Your task to perform on an android device: Open calendar and show me the third week of next month Image 0: 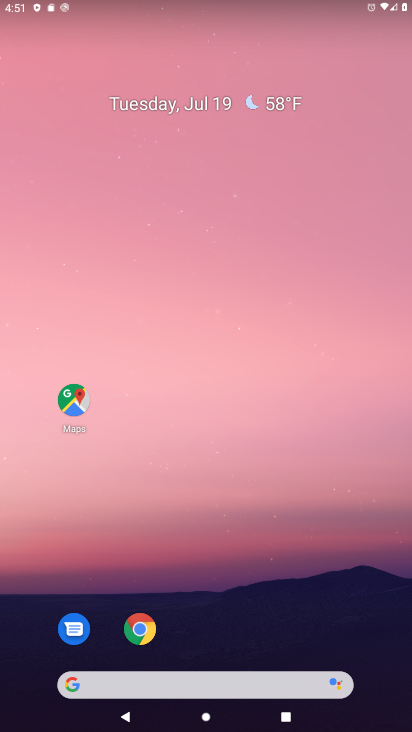
Step 0: drag from (236, 571) to (229, 77)
Your task to perform on an android device: Open calendar and show me the third week of next month Image 1: 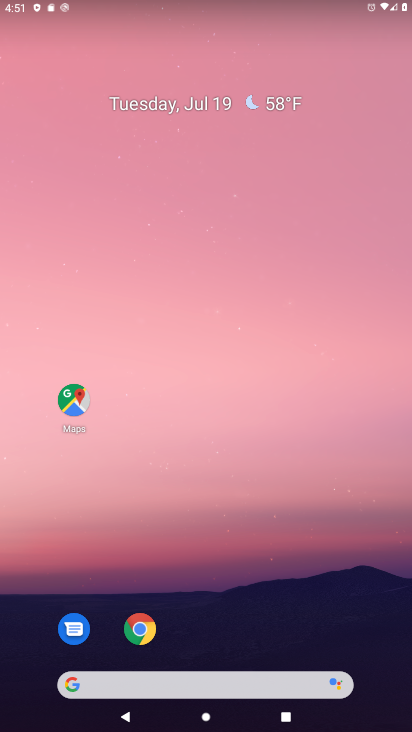
Step 1: drag from (248, 589) to (213, 158)
Your task to perform on an android device: Open calendar and show me the third week of next month Image 2: 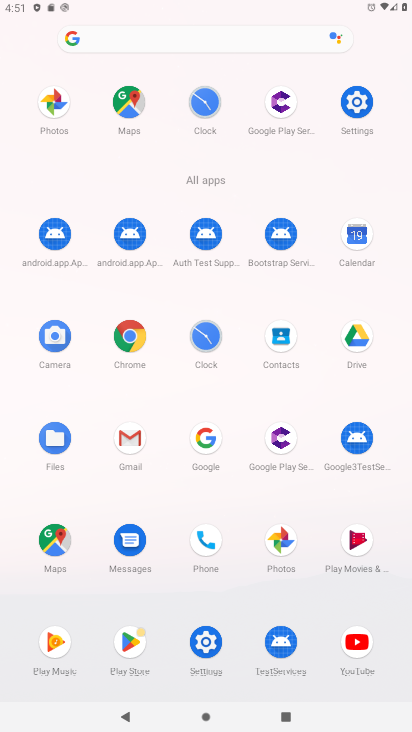
Step 2: drag from (243, 591) to (220, 155)
Your task to perform on an android device: Open calendar and show me the third week of next month Image 3: 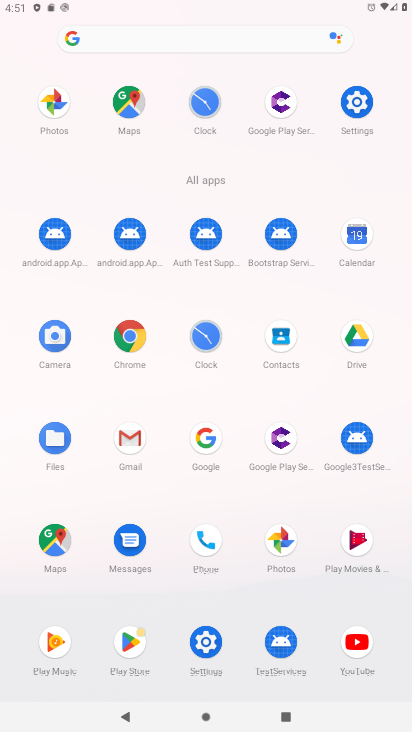
Step 3: click (354, 236)
Your task to perform on an android device: Open calendar and show me the third week of next month Image 4: 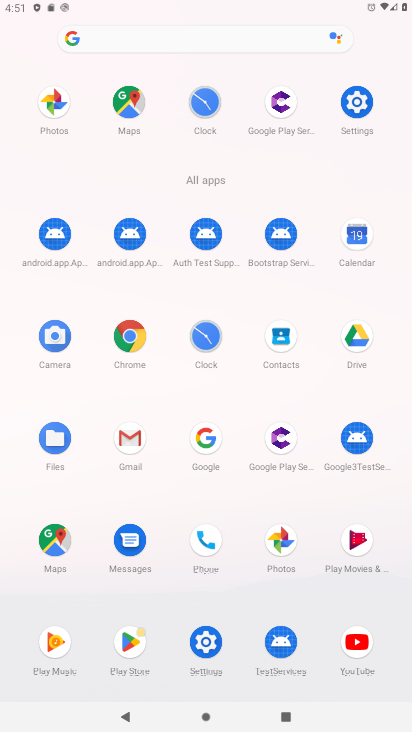
Step 4: click (355, 236)
Your task to perform on an android device: Open calendar and show me the third week of next month Image 5: 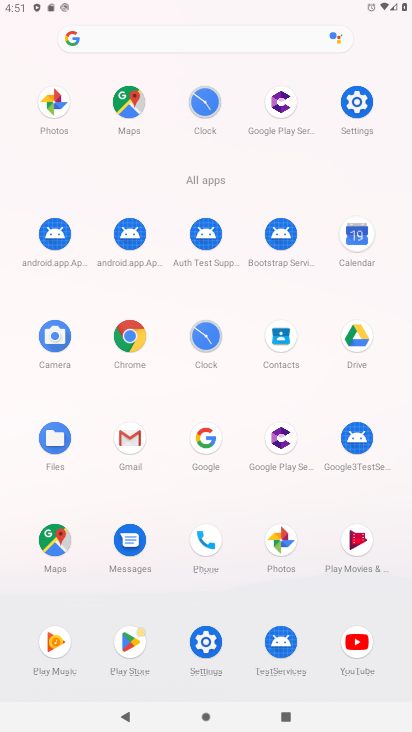
Step 5: click (357, 235)
Your task to perform on an android device: Open calendar and show me the third week of next month Image 6: 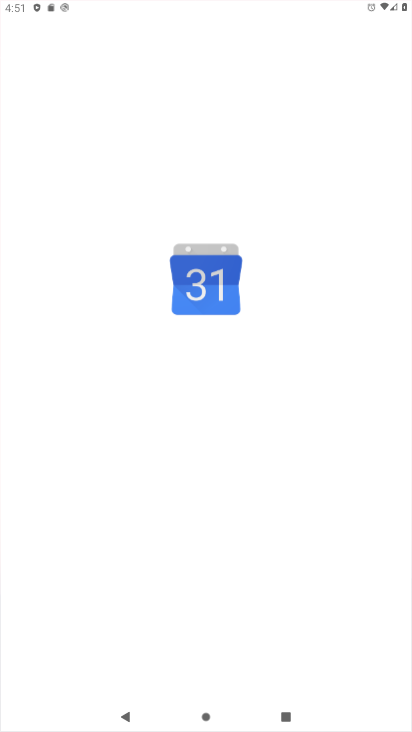
Step 6: click (357, 235)
Your task to perform on an android device: Open calendar and show me the third week of next month Image 7: 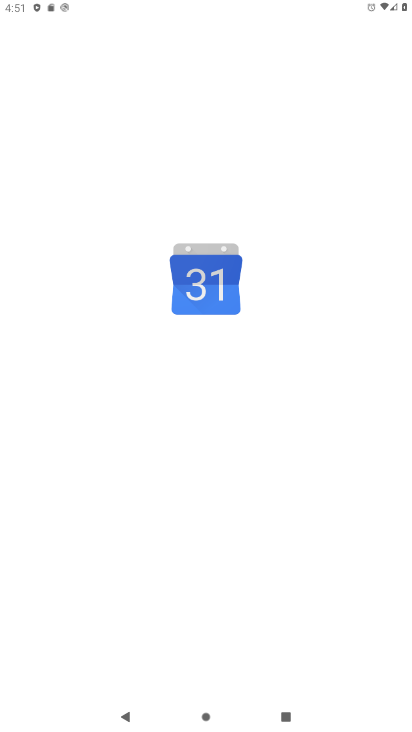
Step 7: click (357, 235)
Your task to perform on an android device: Open calendar and show me the third week of next month Image 8: 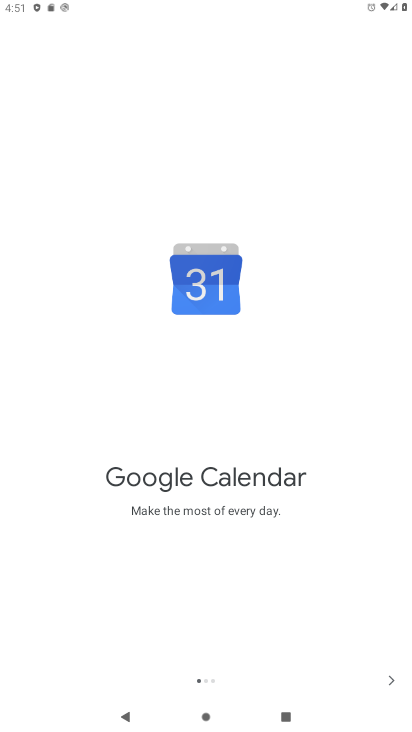
Step 8: click (373, 682)
Your task to perform on an android device: Open calendar and show me the third week of next month Image 9: 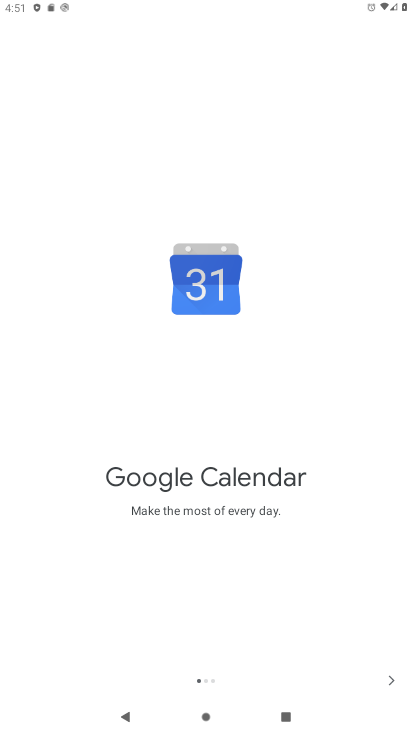
Step 9: click (377, 682)
Your task to perform on an android device: Open calendar and show me the third week of next month Image 10: 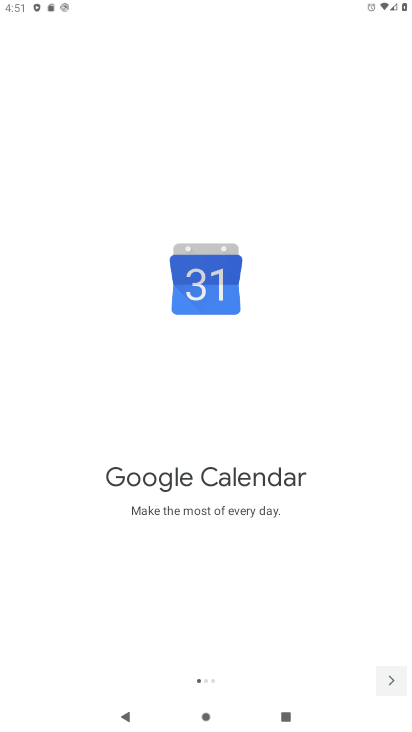
Step 10: click (384, 673)
Your task to perform on an android device: Open calendar and show me the third week of next month Image 11: 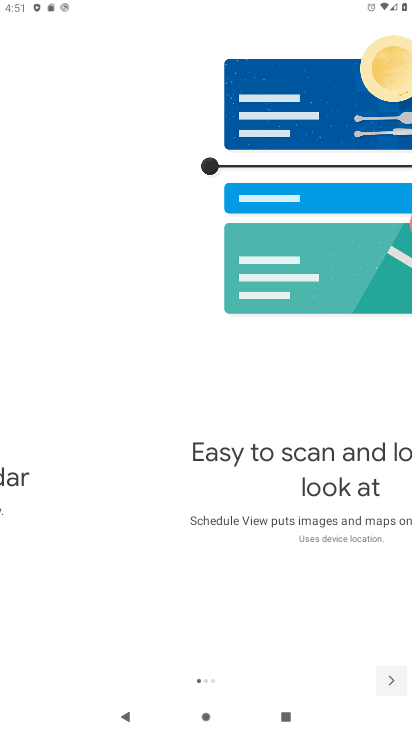
Step 11: click (385, 674)
Your task to perform on an android device: Open calendar and show me the third week of next month Image 12: 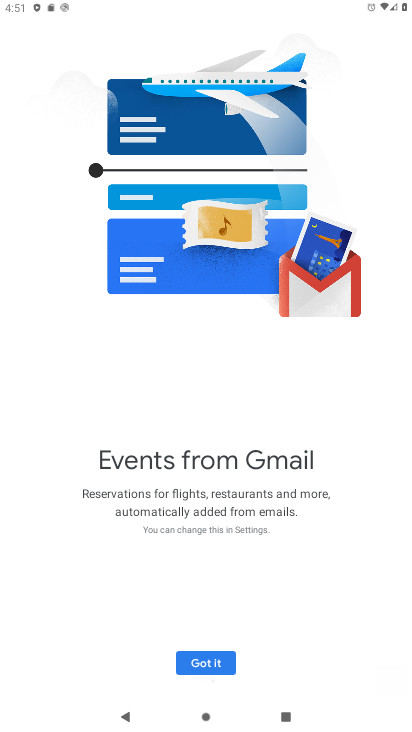
Step 12: click (393, 676)
Your task to perform on an android device: Open calendar and show me the third week of next month Image 13: 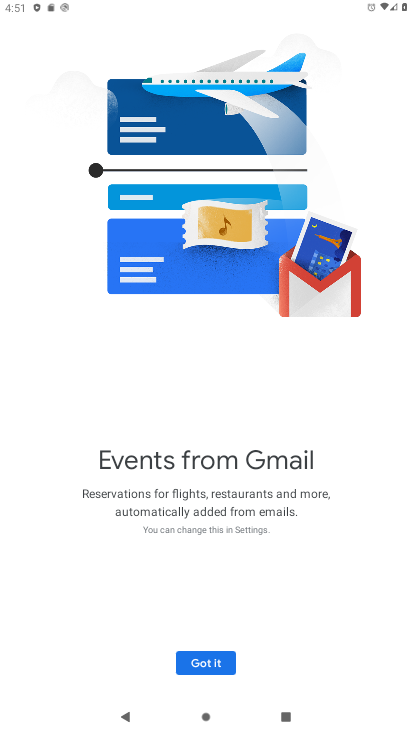
Step 13: click (188, 665)
Your task to perform on an android device: Open calendar and show me the third week of next month Image 14: 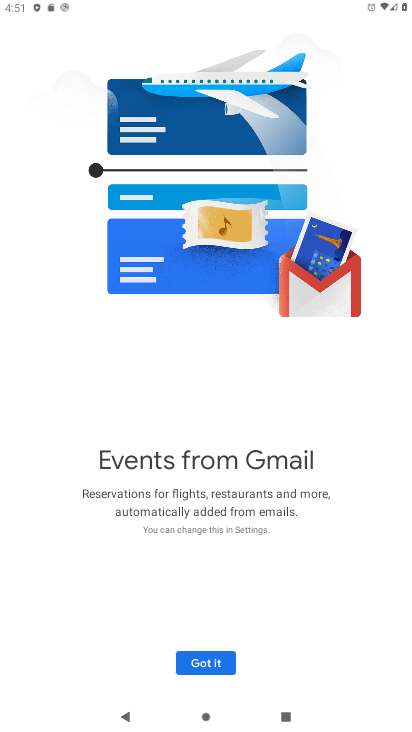
Step 14: click (235, 659)
Your task to perform on an android device: Open calendar and show me the third week of next month Image 15: 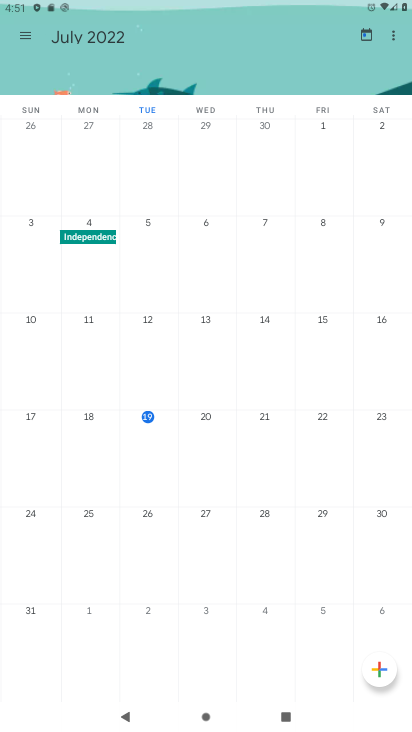
Step 15: drag from (317, 443) to (4, 432)
Your task to perform on an android device: Open calendar and show me the third week of next month Image 16: 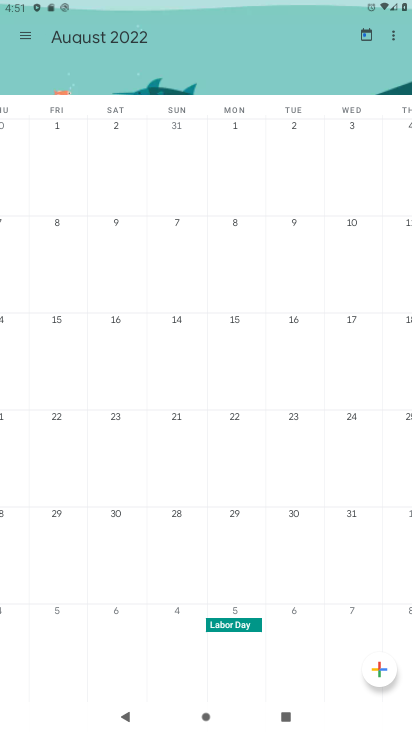
Step 16: drag from (343, 490) to (32, 497)
Your task to perform on an android device: Open calendar and show me the third week of next month Image 17: 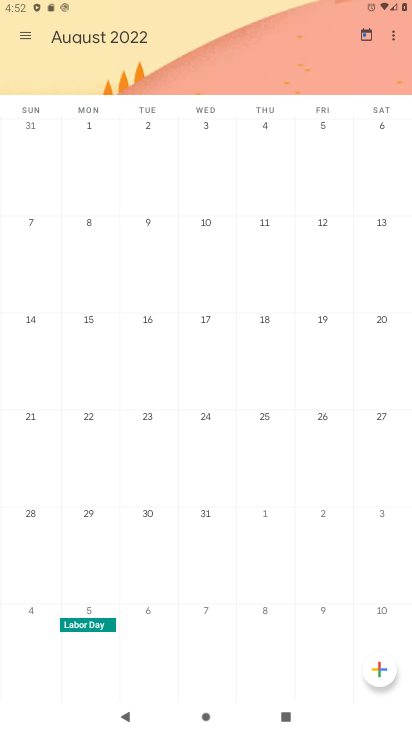
Step 17: click (139, 322)
Your task to perform on an android device: Open calendar and show me the third week of next month Image 18: 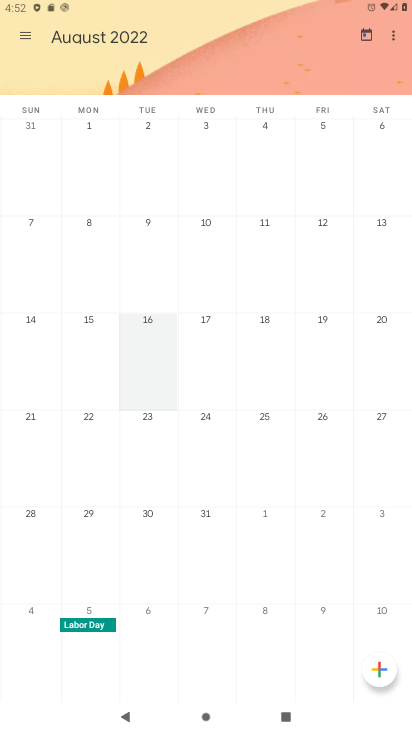
Step 18: click (139, 322)
Your task to perform on an android device: Open calendar and show me the third week of next month Image 19: 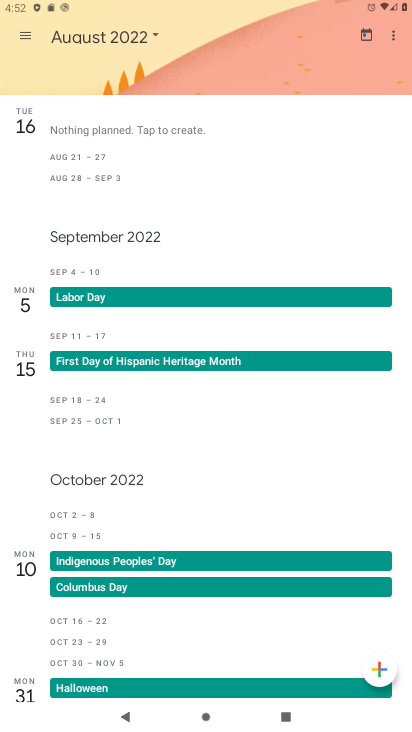
Step 19: task complete